Your task to perform on an android device: turn on bluetooth scan Image 0: 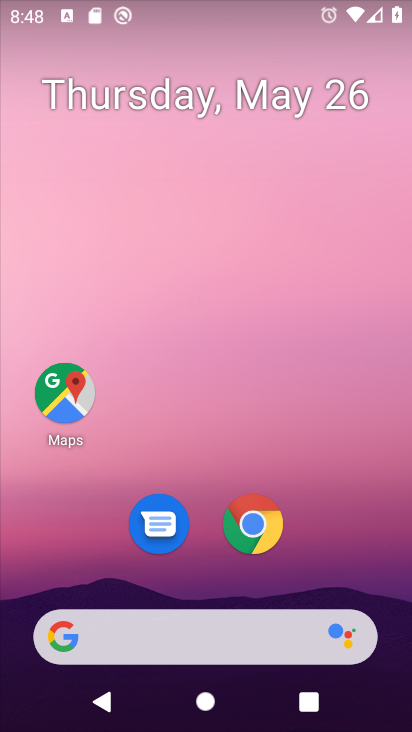
Step 0: drag from (188, 573) to (169, 59)
Your task to perform on an android device: turn on bluetooth scan Image 1: 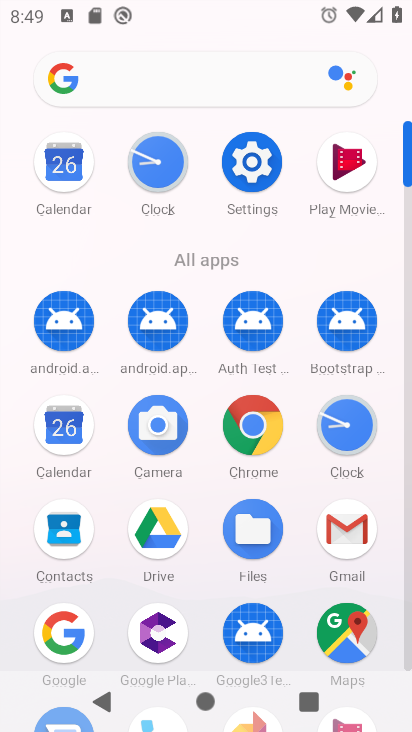
Step 1: click (254, 164)
Your task to perform on an android device: turn on bluetooth scan Image 2: 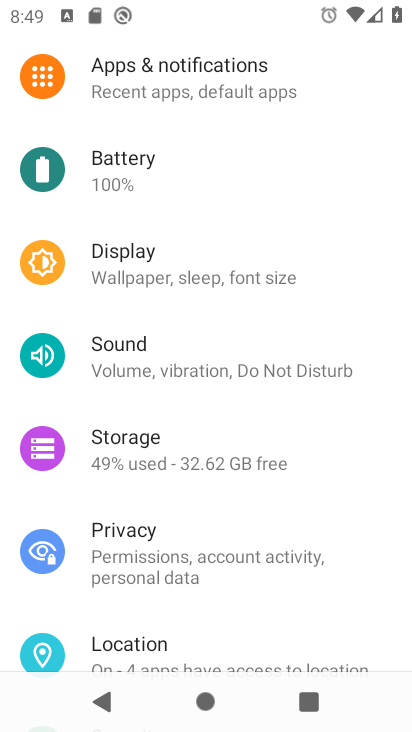
Step 2: click (150, 641)
Your task to perform on an android device: turn on bluetooth scan Image 3: 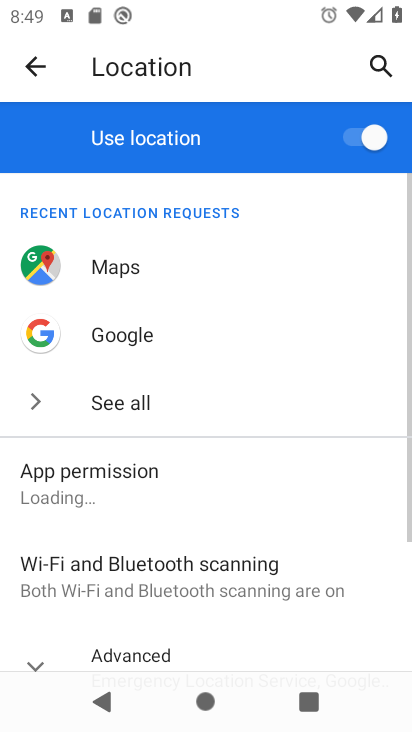
Step 3: click (197, 585)
Your task to perform on an android device: turn on bluetooth scan Image 4: 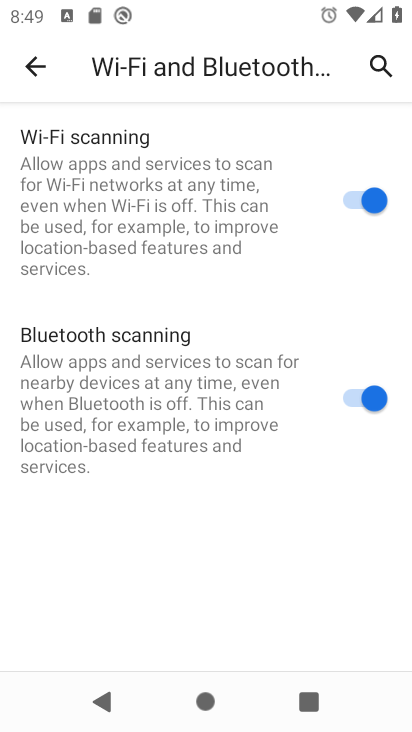
Step 4: task complete